Your task to perform on an android device: turn off picture-in-picture Image 0: 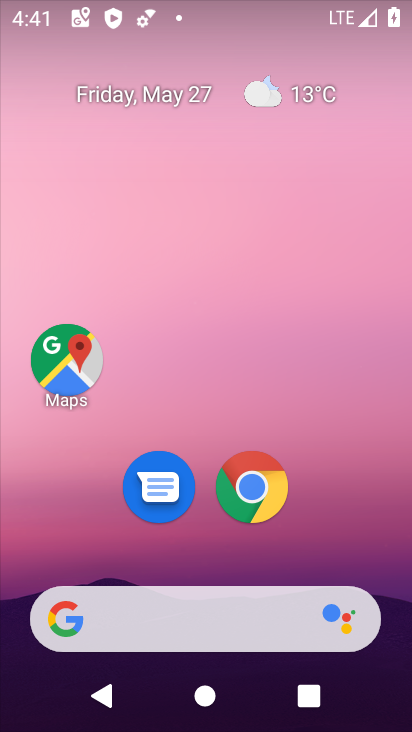
Step 0: click (266, 496)
Your task to perform on an android device: turn off picture-in-picture Image 1: 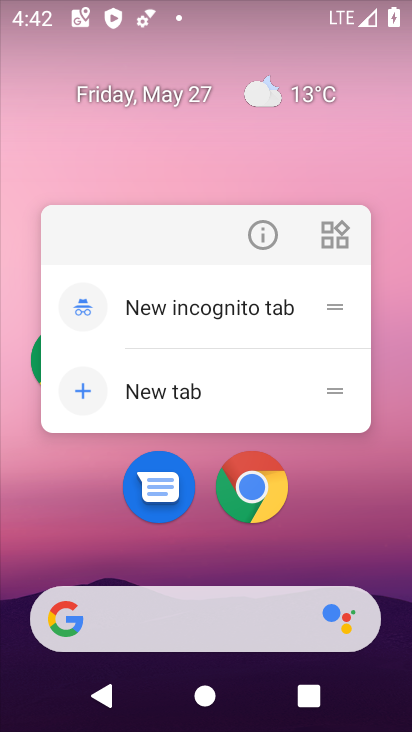
Step 1: click (266, 248)
Your task to perform on an android device: turn off picture-in-picture Image 2: 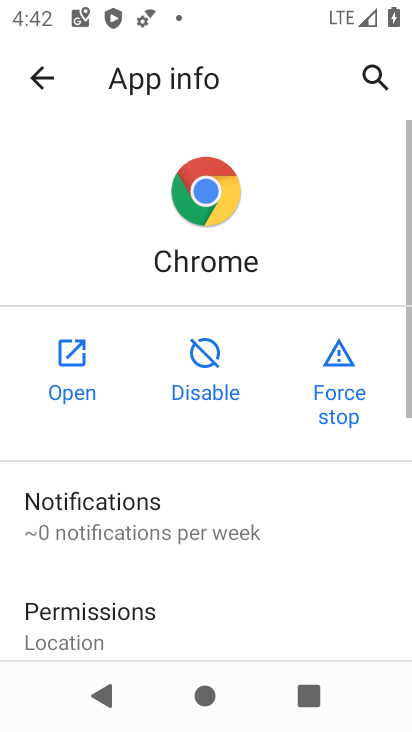
Step 2: drag from (247, 473) to (225, 17)
Your task to perform on an android device: turn off picture-in-picture Image 3: 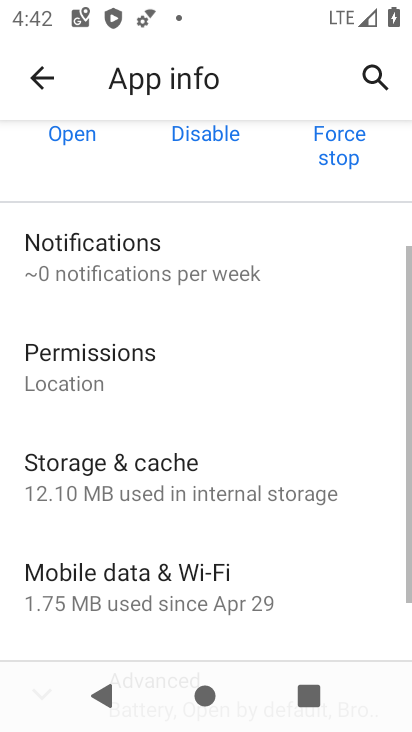
Step 3: drag from (235, 379) to (278, 109)
Your task to perform on an android device: turn off picture-in-picture Image 4: 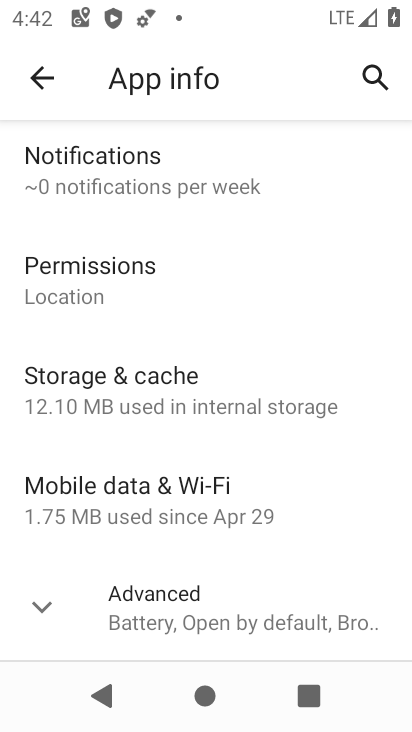
Step 4: click (188, 628)
Your task to perform on an android device: turn off picture-in-picture Image 5: 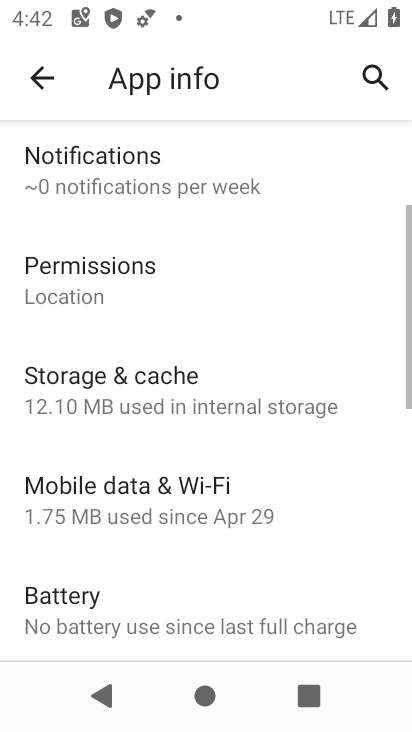
Step 5: drag from (281, 570) to (290, 145)
Your task to perform on an android device: turn off picture-in-picture Image 6: 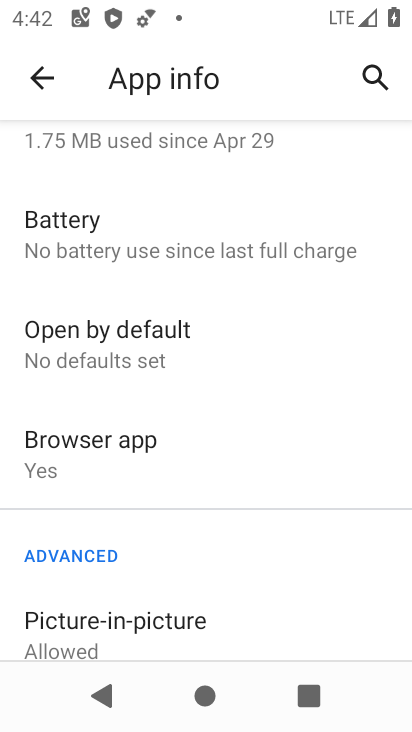
Step 6: drag from (185, 615) to (182, 199)
Your task to perform on an android device: turn off picture-in-picture Image 7: 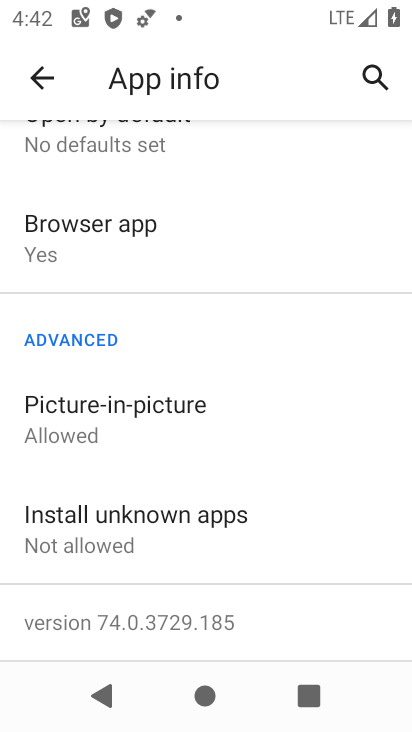
Step 7: click (48, 438)
Your task to perform on an android device: turn off picture-in-picture Image 8: 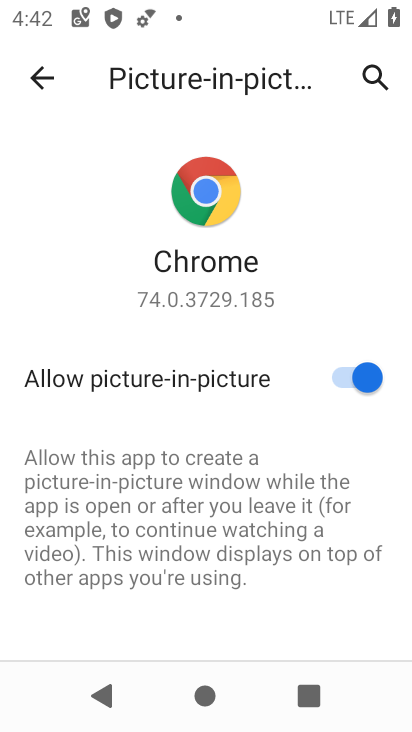
Step 8: click (360, 367)
Your task to perform on an android device: turn off picture-in-picture Image 9: 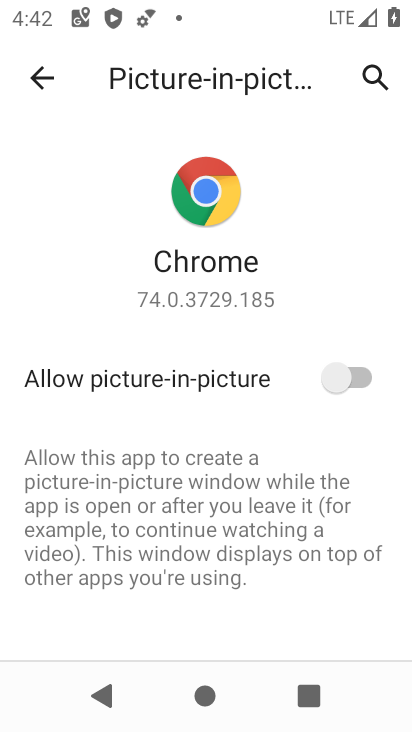
Step 9: task complete